Your task to perform on an android device: change timer sound Image 0: 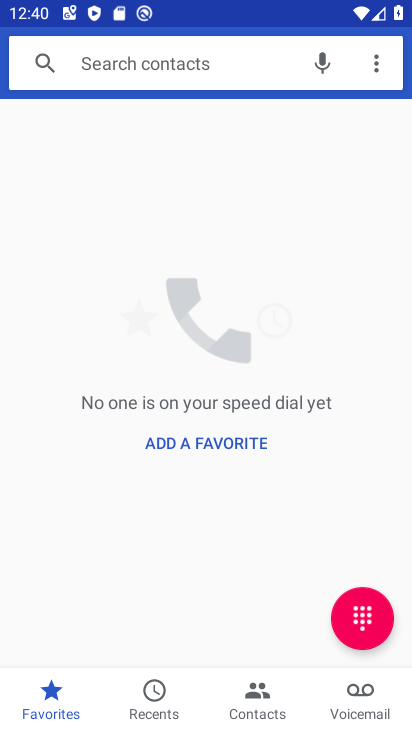
Step 0: press back button
Your task to perform on an android device: change timer sound Image 1: 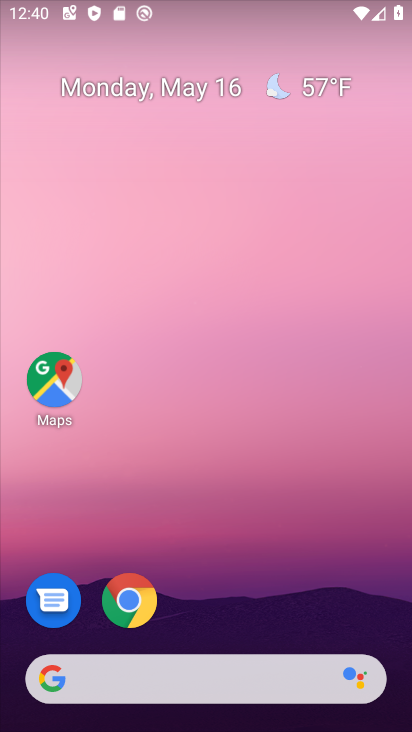
Step 1: drag from (203, 616) to (274, 152)
Your task to perform on an android device: change timer sound Image 2: 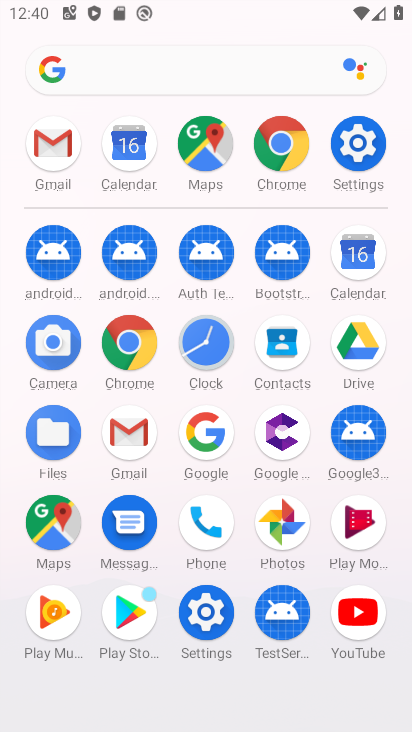
Step 2: click (206, 334)
Your task to perform on an android device: change timer sound Image 3: 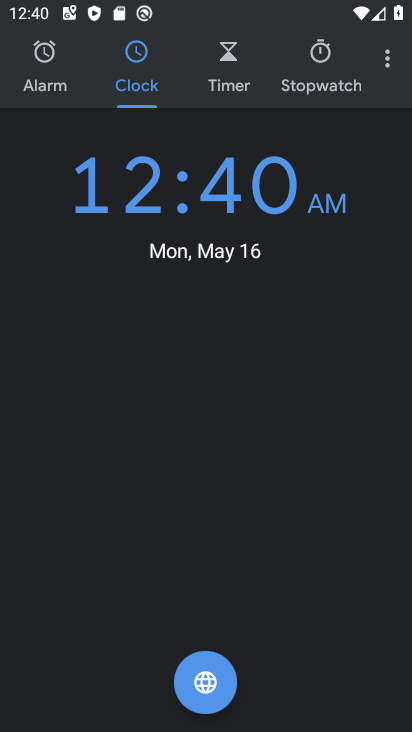
Step 3: click (384, 54)
Your task to perform on an android device: change timer sound Image 4: 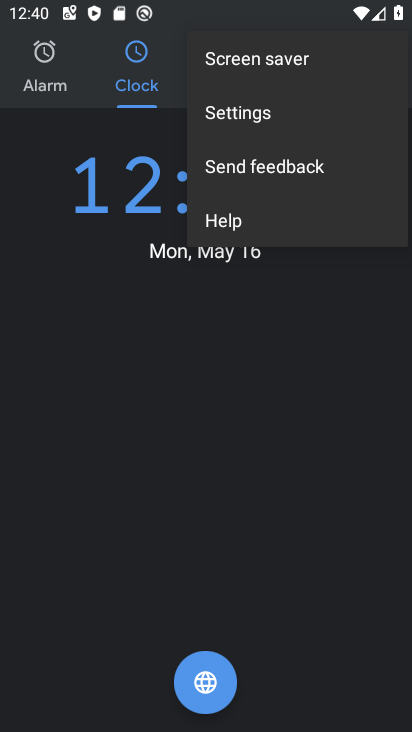
Step 4: click (291, 97)
Your task to perform on an android device: change timer sound Image 5: 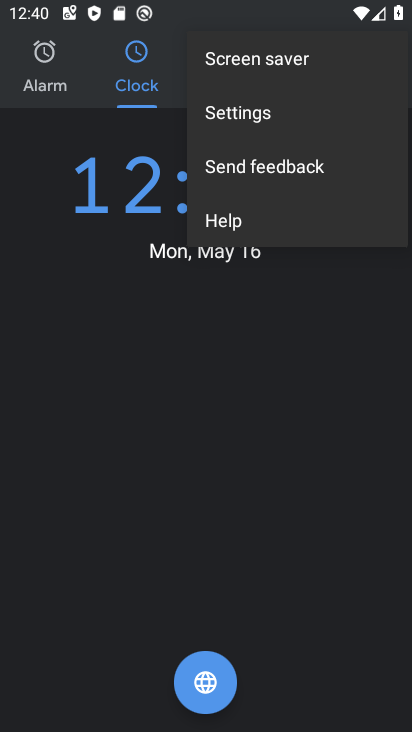
Step 5: click (241, 114)
Your task to perform on an android device: change timer sound Image 6: 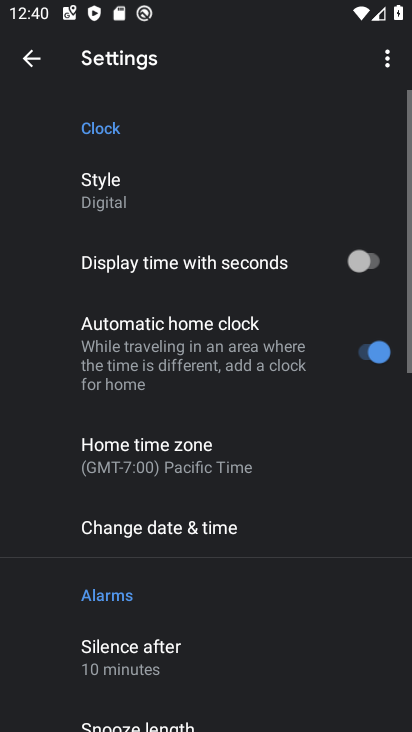
Step 6: drag from (230, 626) to (263, 213)
Your task to perform on an android device: change timer sound Image 7: 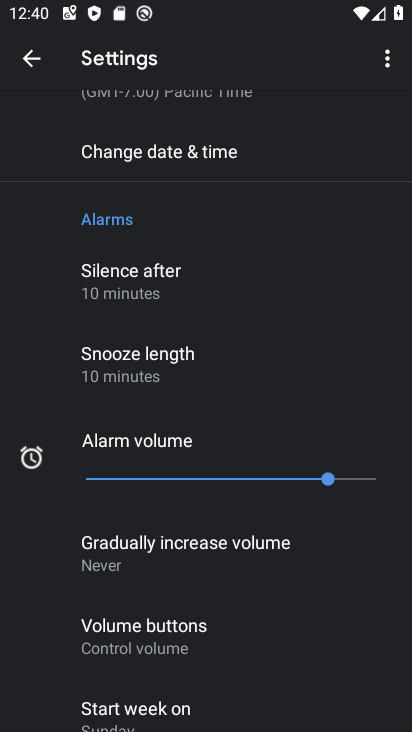
Step 7: drag from (183, 694) to (284, 214)
Your task to perform on an android device: change timer sound Image 8: 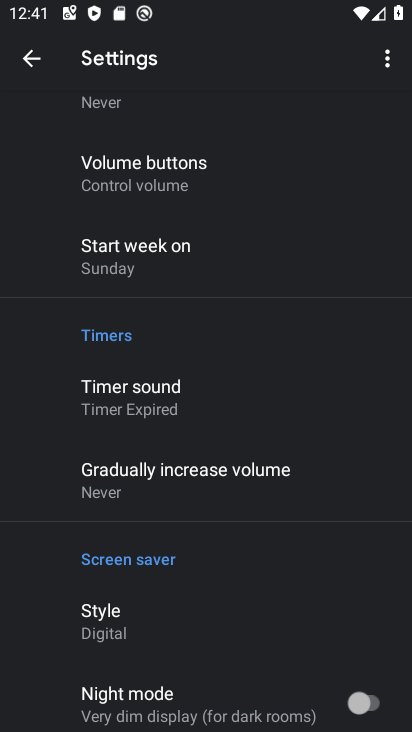
Step 8: click (121, 404)
Your task to perform on an android device: change timer sound Image 9: 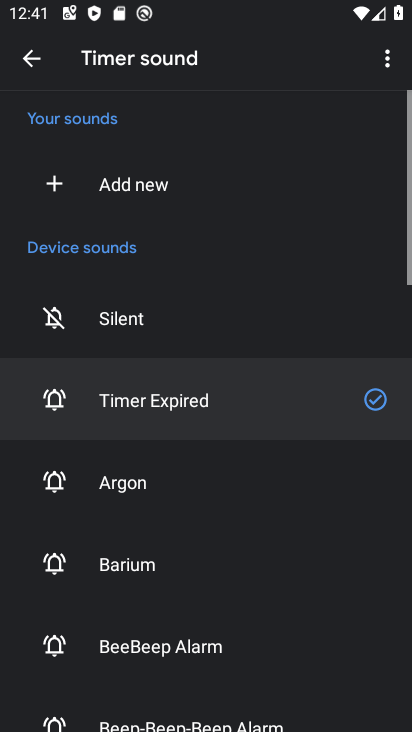
Step 9: click (142, 487)
Your task to perform on an android device: change timer sound Image 10: 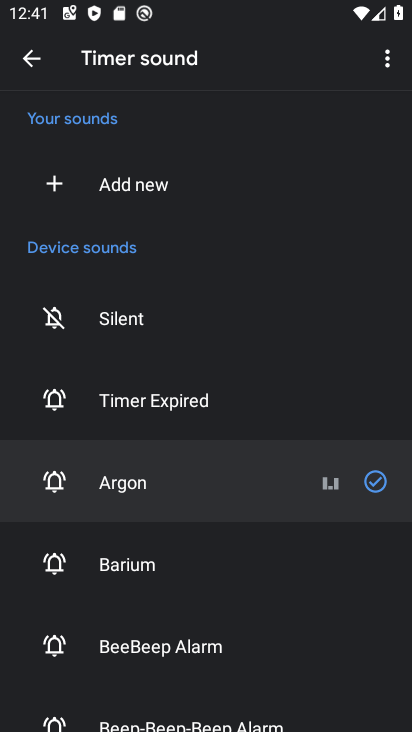
Step 10: task complete